Your task to perform on an android device: Go to Amazon Image 0: 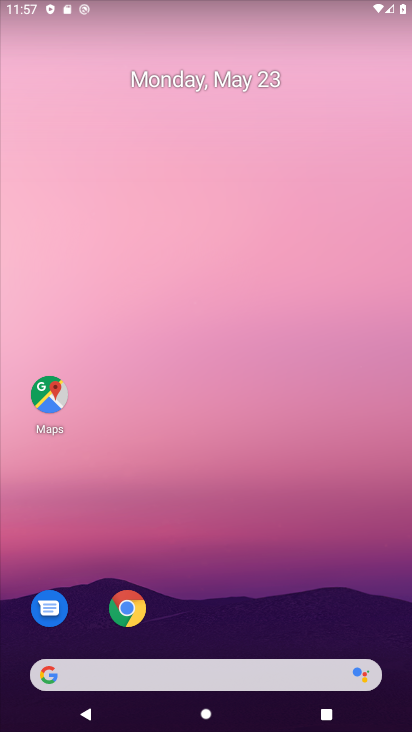
Step 0: press home button
Your task to perform on an android device: Go to Amazon Image 1: 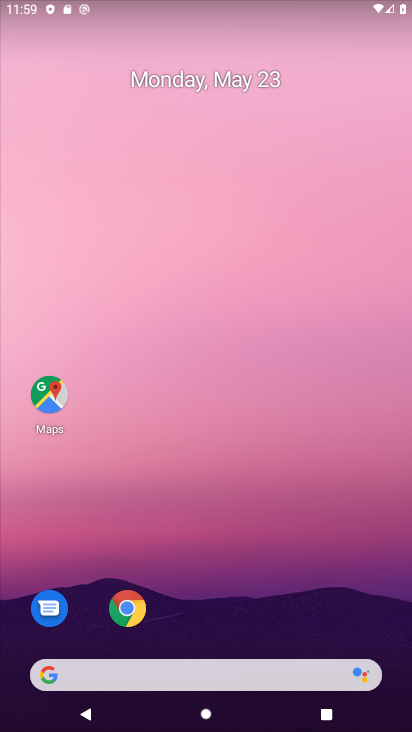
Step 1: drag from (306, 701) to (193, 110)
Your task to perform on an android device: Go to Amazon Image 2: 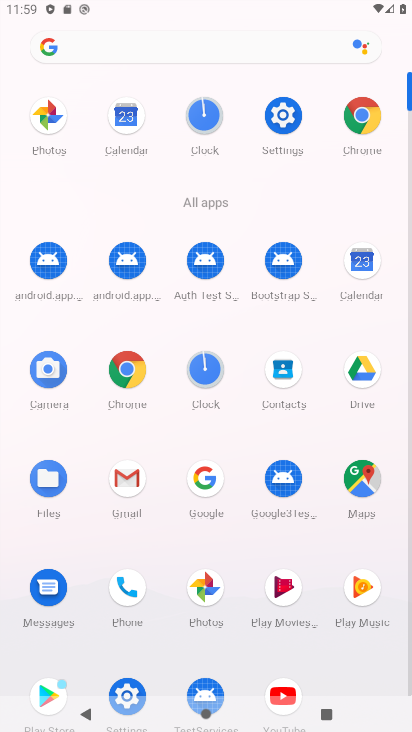
Step 2: click (357, 128)
Your task to perform on an android device: Go to Amazon Image 3: 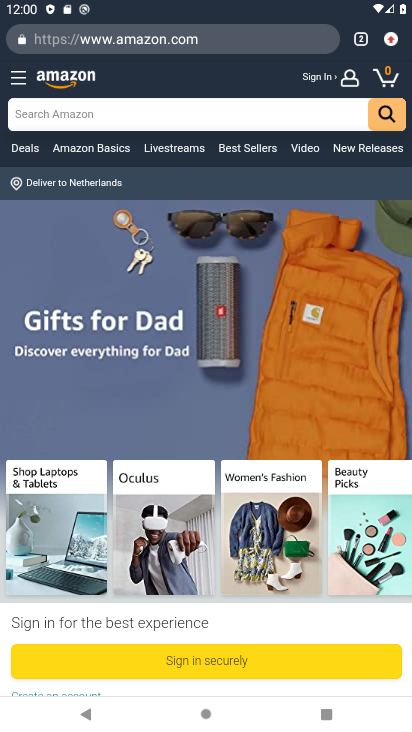
Step 3: task complete